Your task to perform on an android device: stop showing notifications on the lock screen Image 0: 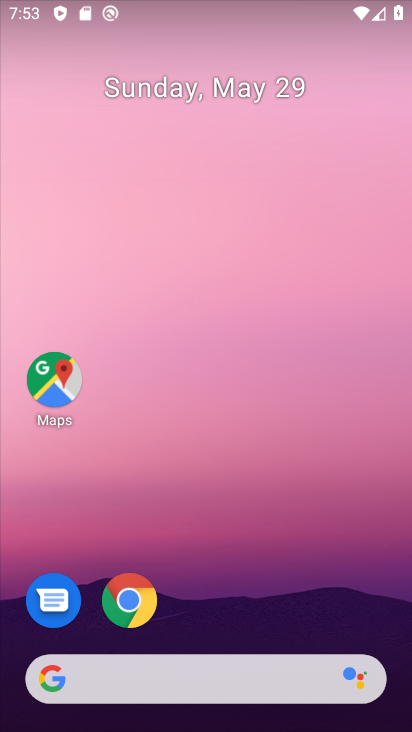
Step 0: drag from (347, 587) to (330, 154)
Your task to perform on an android device: stop showing notifications on the lock screen Image 1: 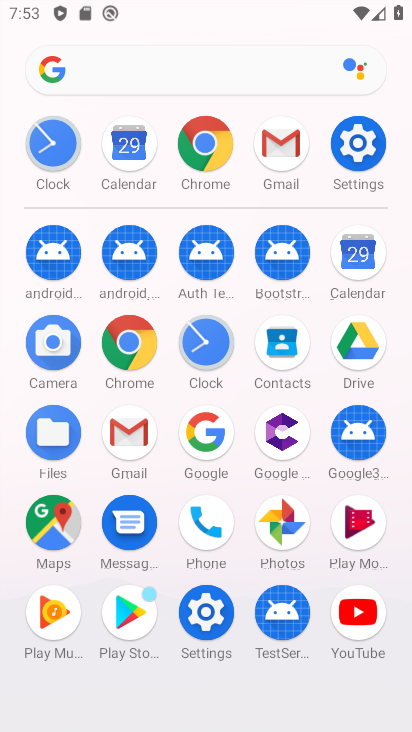
Step 1: click (217, 628)
Your task to perform on an android device: stop showing notifications on the lock screen Image 2: 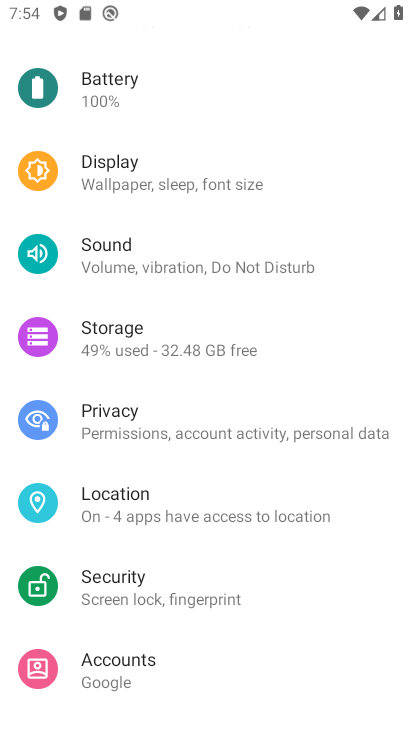
Step 2: drag from (225, 186) to (186, 564)
Your task to perform on an android device: stop showing notifications on the lock screen Image 3: 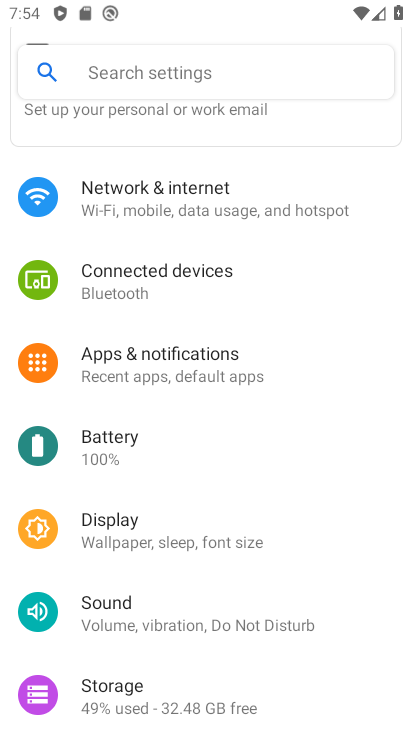
Step 3: click (197, 356)
Your task to perform on an android device: stop showing notifications on the lock screen Image 4: 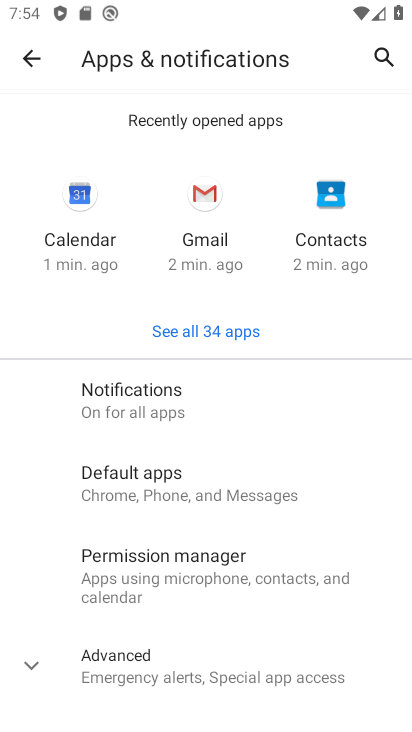
Step 4: click (189, 389)
Your task to perform on an android device: stop showing notifications on the lock screen Image 5: 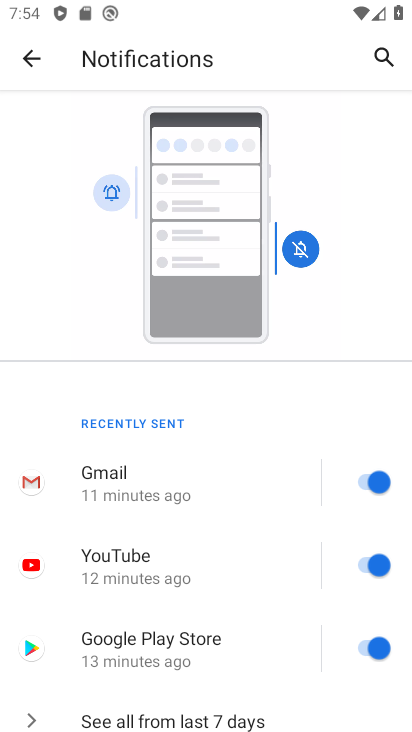
Step 5: drag from (213, 633) to (231, 407)
Your task to perform on an android device: stop showing notifications on the lock screen Image 6: 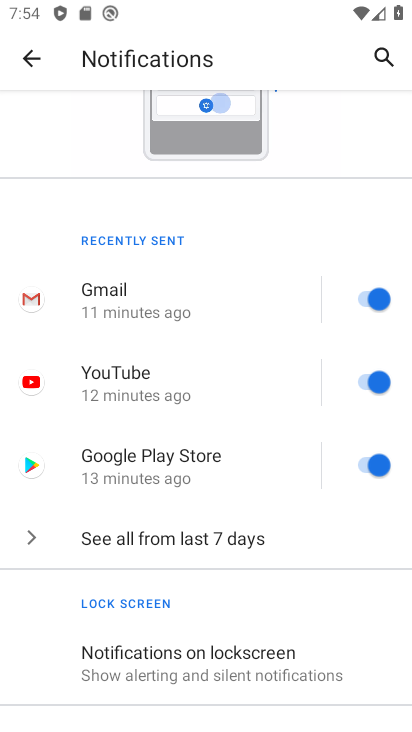
Step 6: click (210, 642)
Your task to perform on an android device: stop showing notifications on the lock screen Image 7: 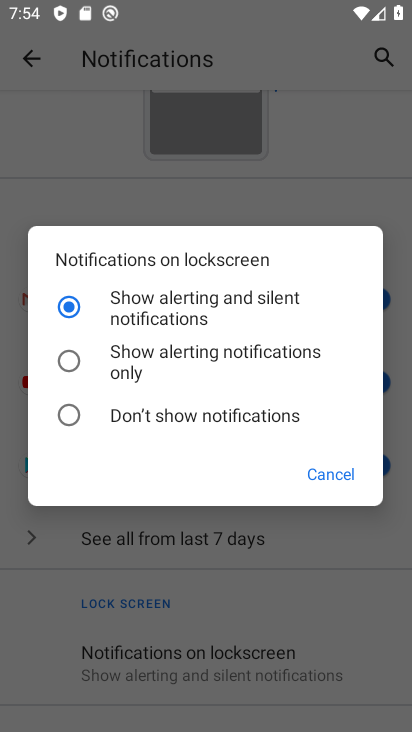
Step 7: click (195, 415)
Your task to perform on an android device: stop showing notifications on the lock screen Image 8: 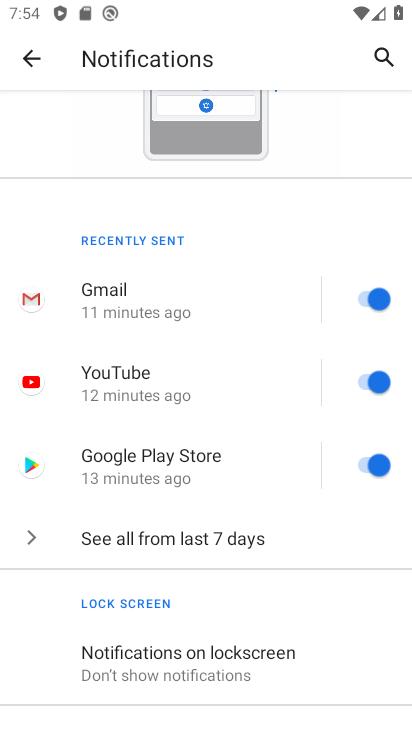
Step 8: task complete